Your task to perform on an android device: add a label to a message in the gmail app Image 0: 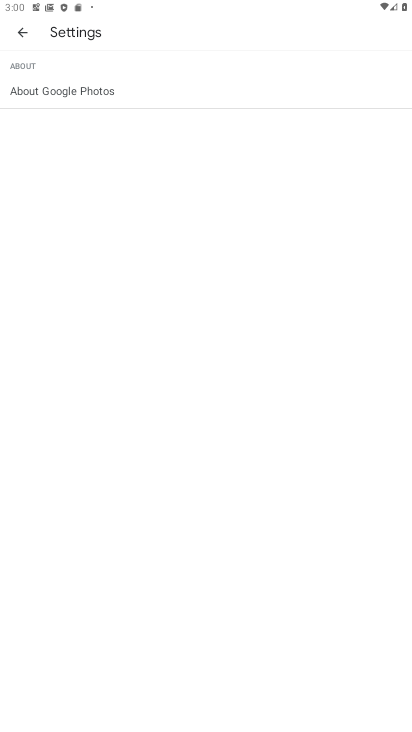
Step 0: press home button
Your task to perform on an android device: add a label to a message in the gmail app Image 1: 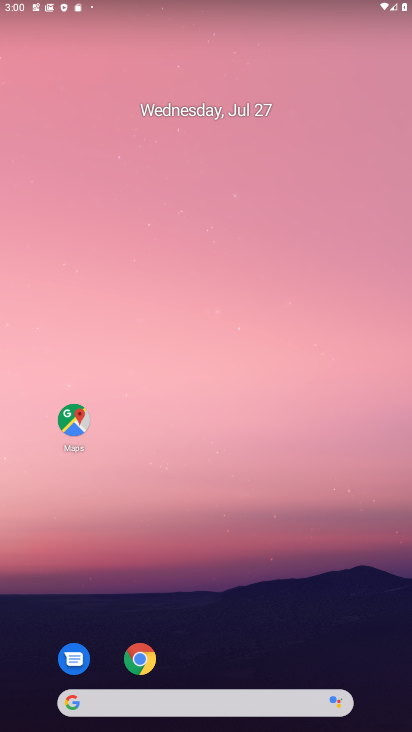
Step 1: drag from (187, 651) to (187, 303)
Your task to perform on an android device: add a label to a message in the gmail app Image 2: 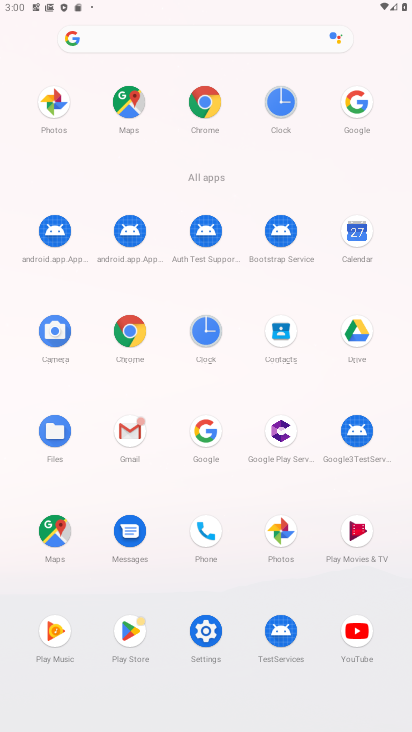
Step 2: click (135, 422)
Your task to perform on an android device: add a label to a message in the gmail app Image 3: 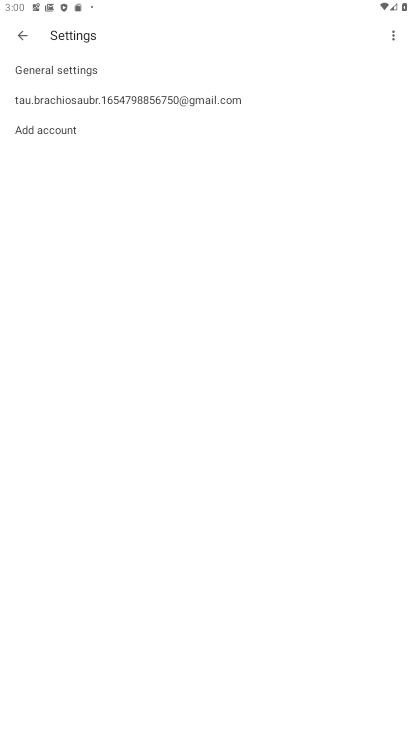
Step 3: click (23, 32)
Your task to perform on an android device: add a label to a message in the gmail app Image 4: 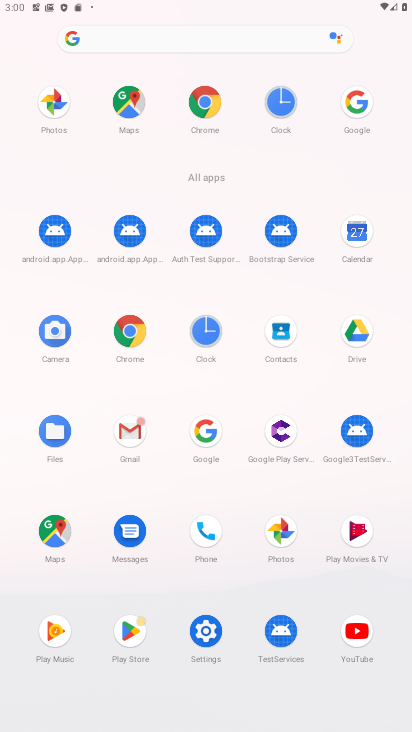
Step 4: click (145, 426)
Your task to perform on an android device: add a label to a message in the gmail app Image 5: 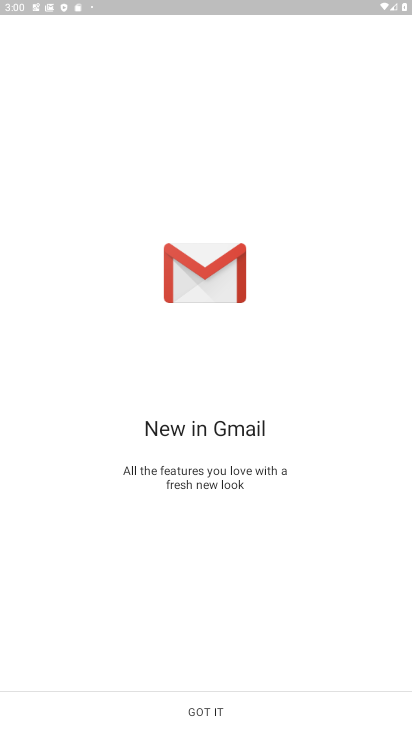
Step 5: click (206, 715)
Your task to perform on an android device: add a label to a message in the gmail app Image 6: 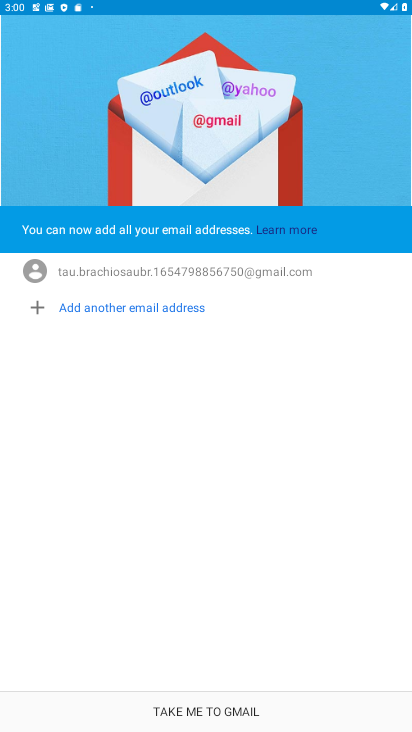
Step 6: click (205, 714)
Your task to perform on an android device: add a label to a message in the gmail app Image 7: 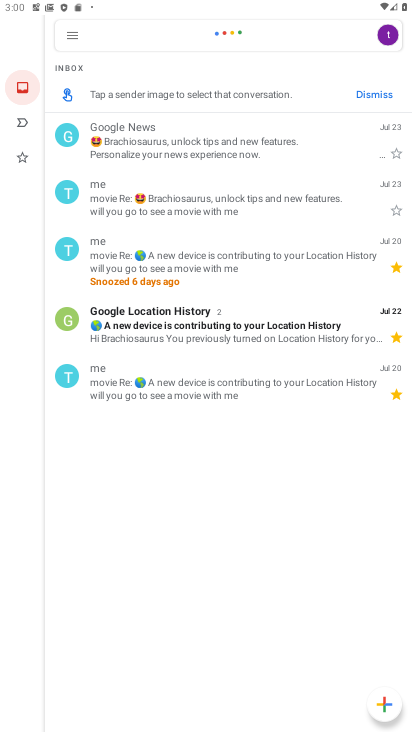
Step 7: click (166, 140)
Your task to perform on an android device: add a label to a message in the gmail app Image 8: 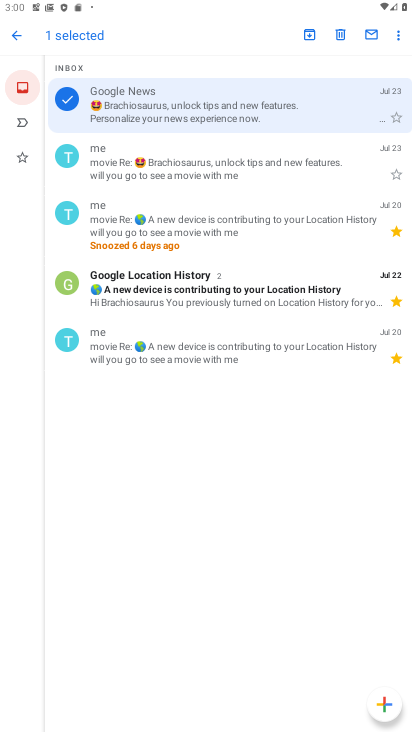
Step 8: click (396, 35)
Your task to perform on an android device: add a label to a message in the gmail app Image 9: 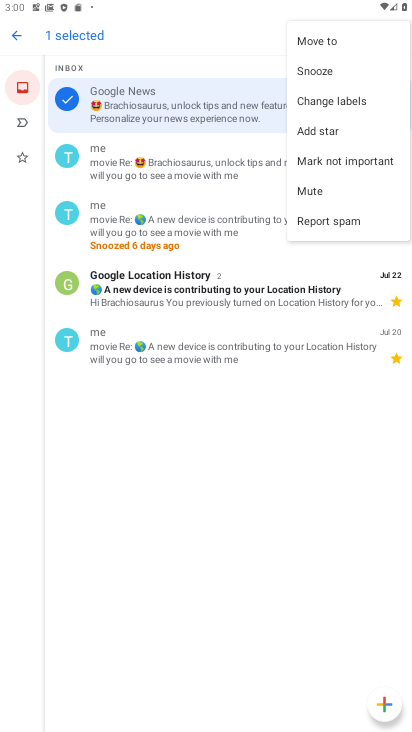
Step 9: click (335, 101)
Your task to perform on an android device: add a label to a message in the gmail app Image 10: 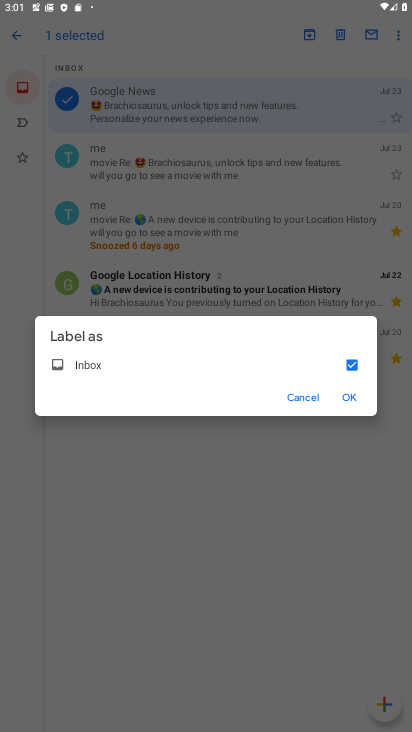
Step 10: click (343, 400)
Your task to perform on an android device: add a label to a message in the gmail app Image 11: 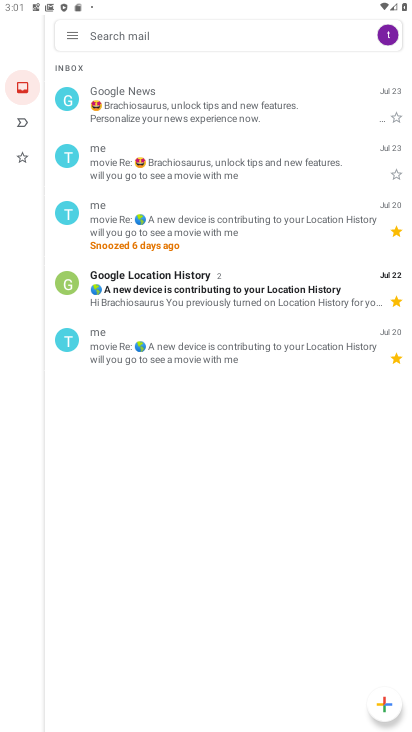
Step 11: task complete